Your task to perform on an android device: What's on my calendar today? Image 0: 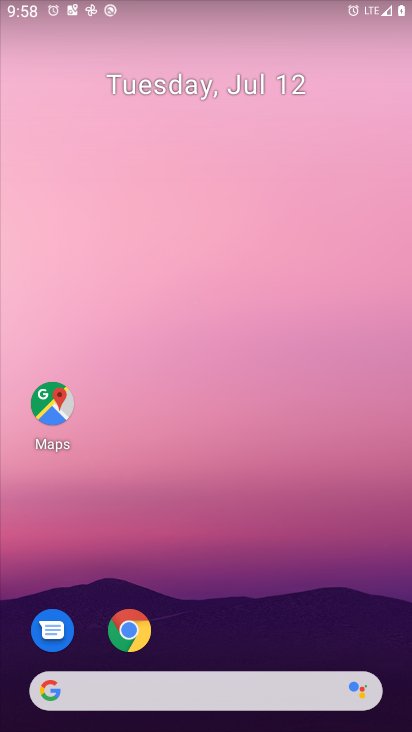
Step 0: press home button
Your task to perform on an android device: What's on my calendar today? Image 1: 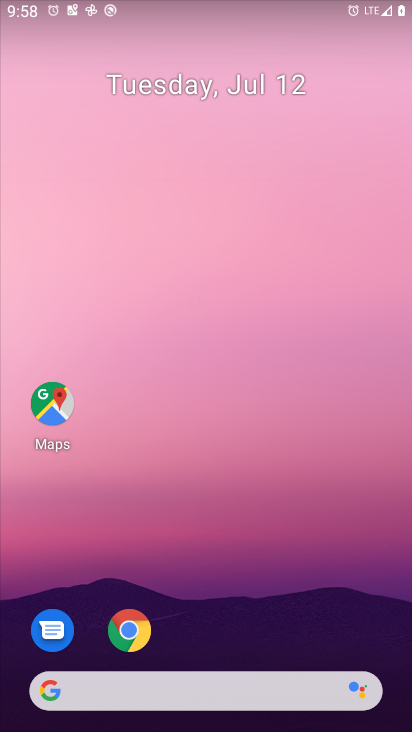
Step 1: drag from (258, 377) to (240, 151)
Your task to perform on an android device: What's on my calendar today? Image 2: 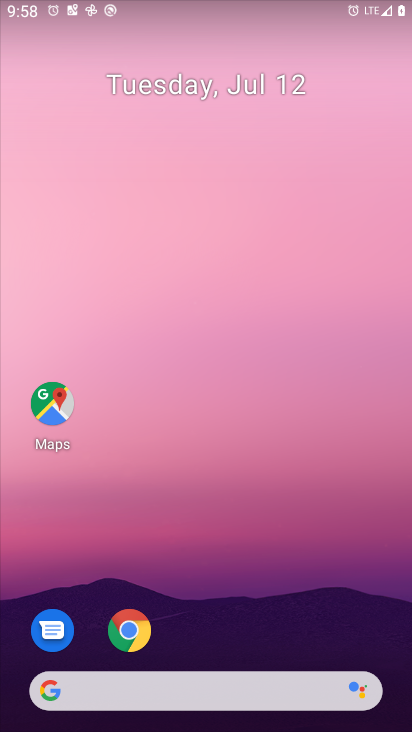
Step 2: drag from (282, 534) to (412, 368)
Your task to perform on an android device: What's on my calendar today? Image 3: 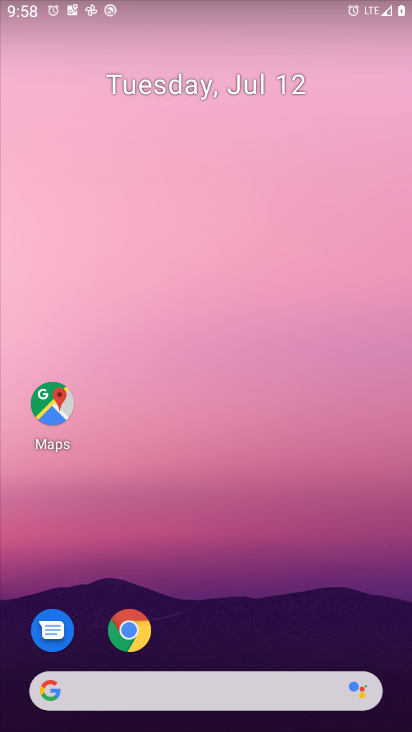
Step 3: drag from (231, 482) to (190, 20)
Your task to perform on an android device: What's on my calendar today? Image 4: 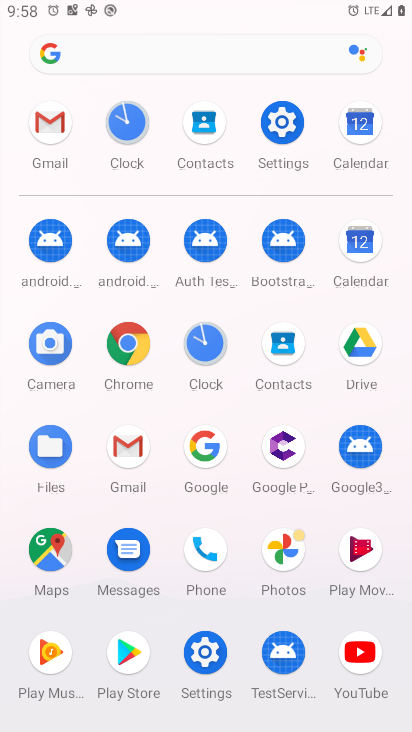
Step 4: click (351, 232)
Your task to perform on an android device: What's on my calendar today? Image 5: 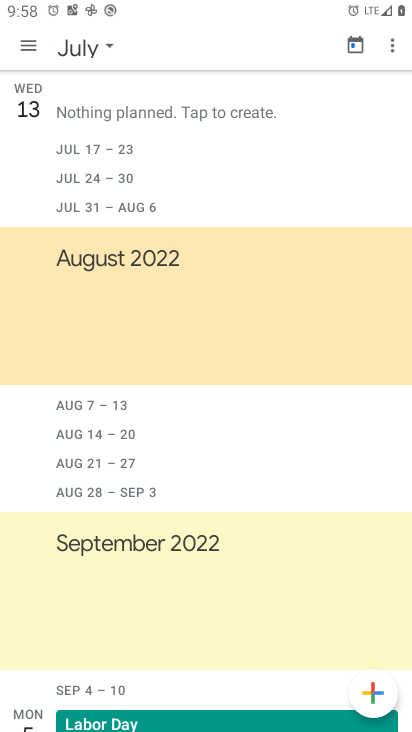
Step 5: task complete